Your task to perform on an android device: Go to internet settings Image 0: 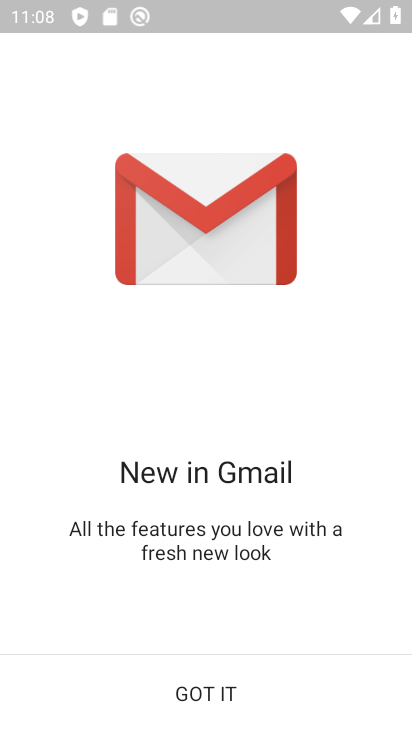
Step 0: press home button
Your task to perform on an android device: Go to internet settings Image 1: 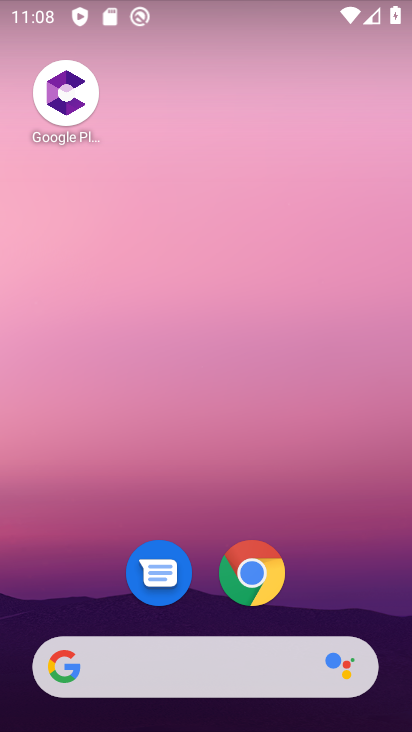
Step 1: drag from (186, 660) to (329, 57)
Your task to perform on an android device: Go to internet settings Image 2: 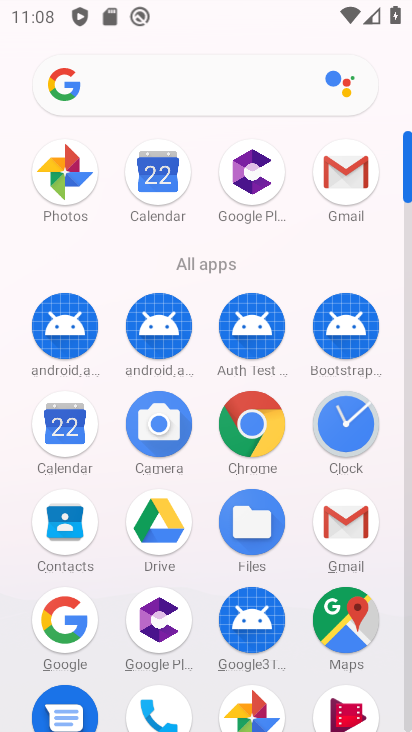
Step 2: drag from (204, 557) to (397, 98)
Your task to perform on an android device: Go to internet settings Image 3: 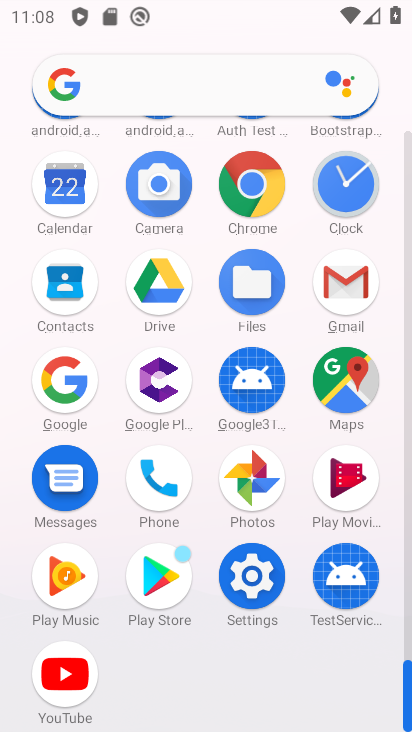
Step 3: click (259, 593)
Your task to perform on an android device: Go to internet settings Image 4: 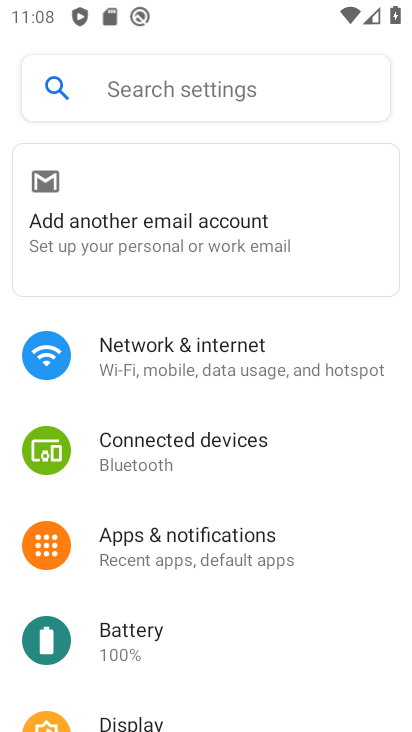
Step 4: click (198, 369)
Your task to perform on an android device: Go to internet settings Image 5: 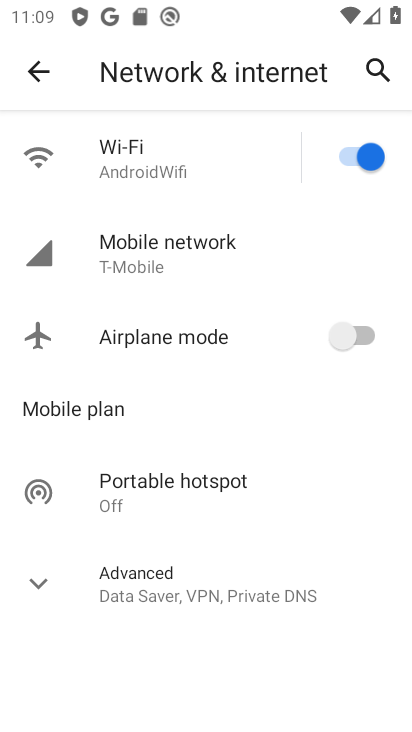
Step 5: task complete